Your task to perform on an android device: Go to settings Image 0: 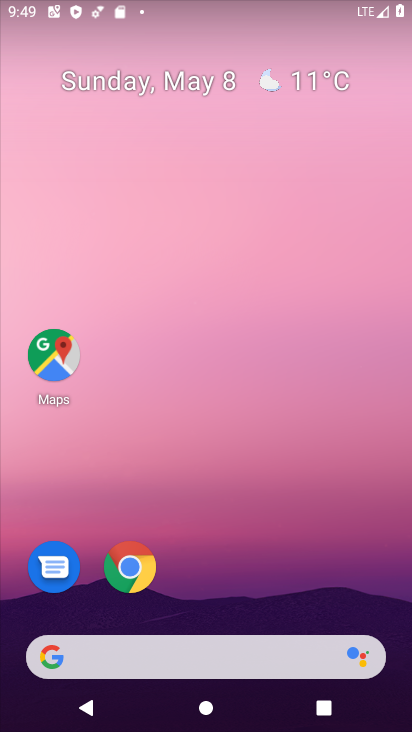
Step 0: drag from (207, 622) to (320, 44)
Your task to perform on an android device: Go to settings Image 1: 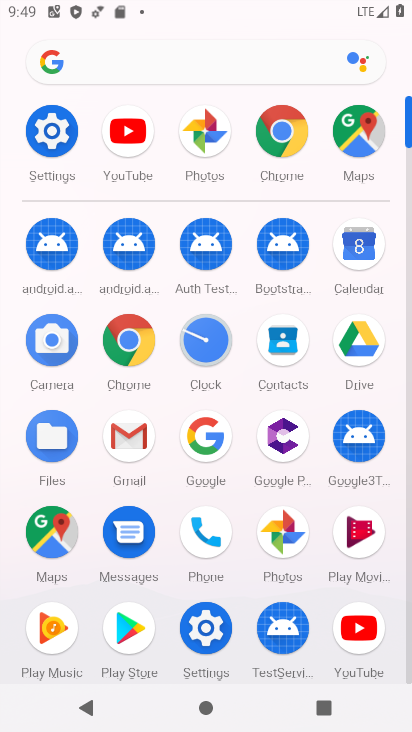
Step 1: click (35, 130)
Your task to perform on an android device: Go to settings Image 2: 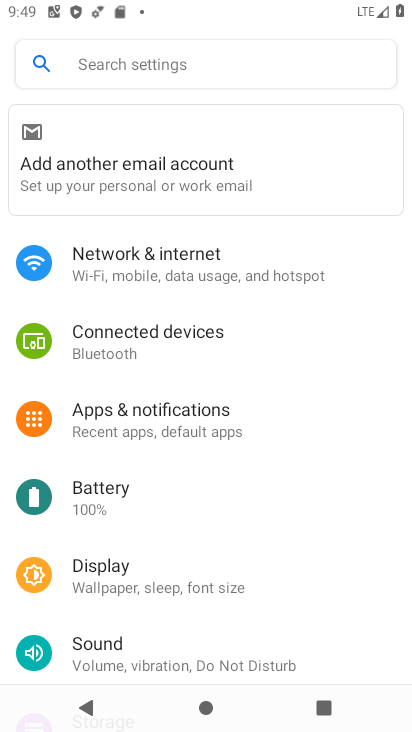
Step 2: task complete